Your task to perform on an android device: turn smart compose on in the gmail app Image 0: 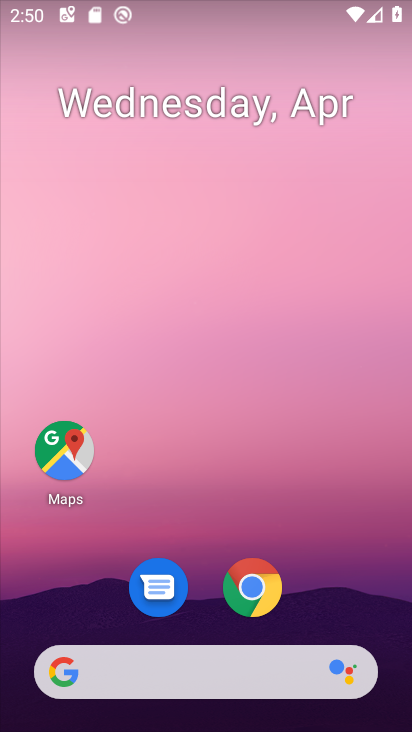
Step 0: drag from (360, 595) to (263, 79)
Your task to perform on an android device: turn smart compose on in the gmail app Image 1: 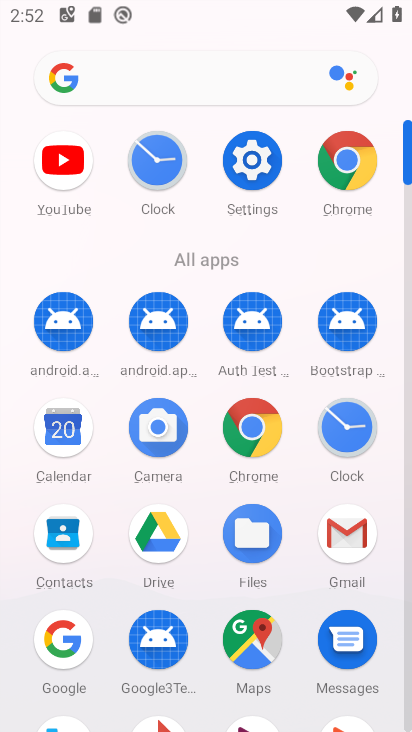
Step 1: click (348, 524)
Your task to perform on an android device: turn smart compose on in the gmail app Image 2: 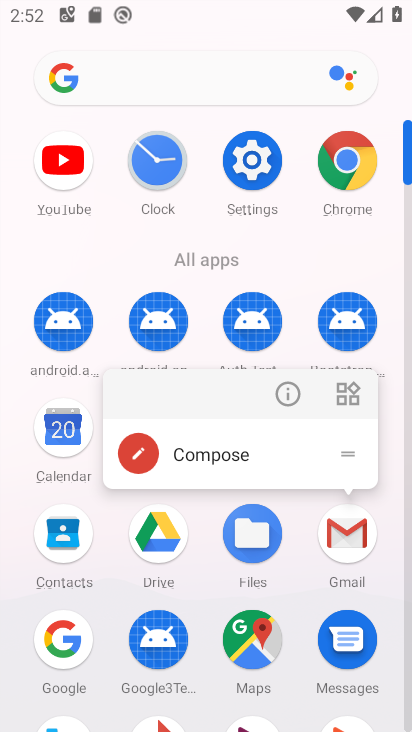
Step 2: click (353, 536)
Your task to perform on an android device: turn smart compose on in the gmail app Image 3: 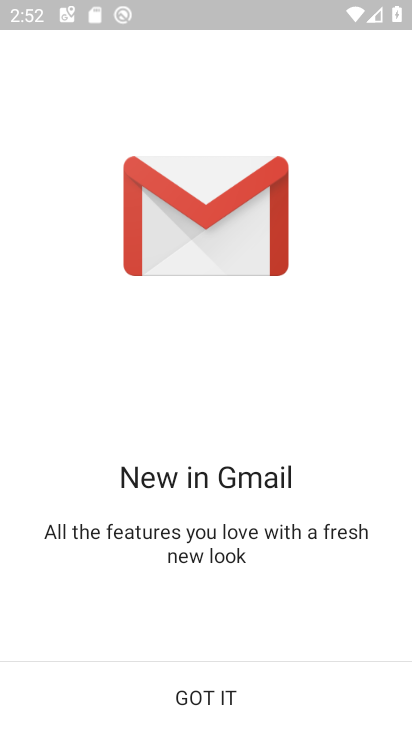
Step 3: click (241, 683)
Your task to perform on an android device: turn smart compose on in the gmail app Image 4: 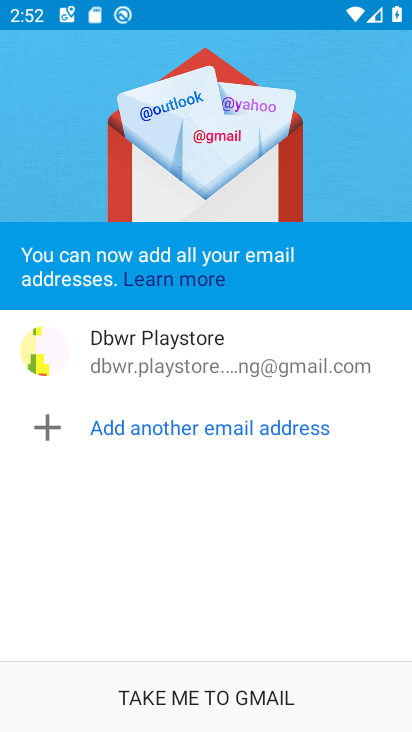
Step 4: click (241, 683)
Your task to perform on an android device: turn smart compose on in the gmail app Image 5: 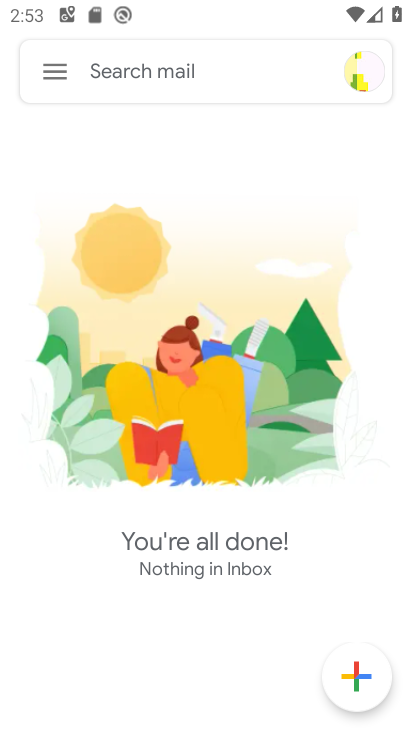
Step 5: click (69, 48)
Your task to perform on an android device: turn smart compose on in the gmail app Image 6: 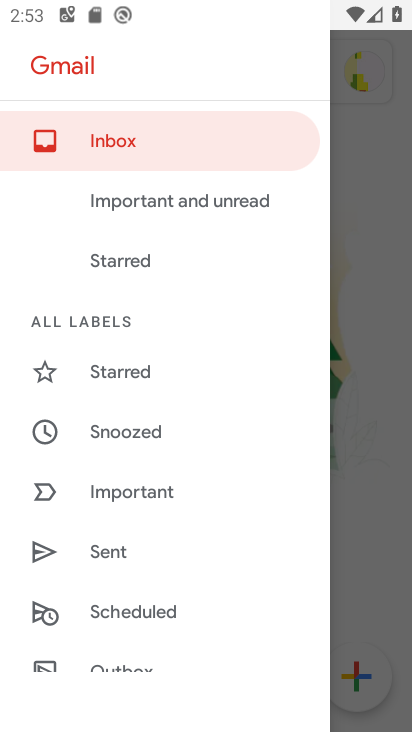
Step 6: drag from (135, 490) to (190, 124)
Your task to perform on an android device: turn smart compose on in the gmail app Image 7: 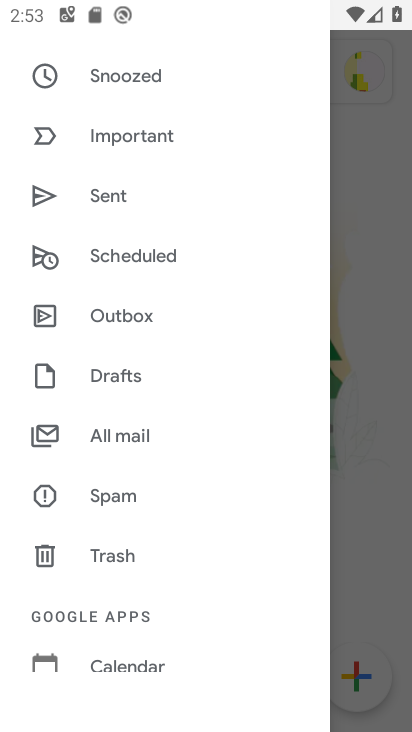
Step 7: drag from (183, 584) to (275, 100)
Your task to perform on an android device: turn smart compose on in the gmail app Image 8: 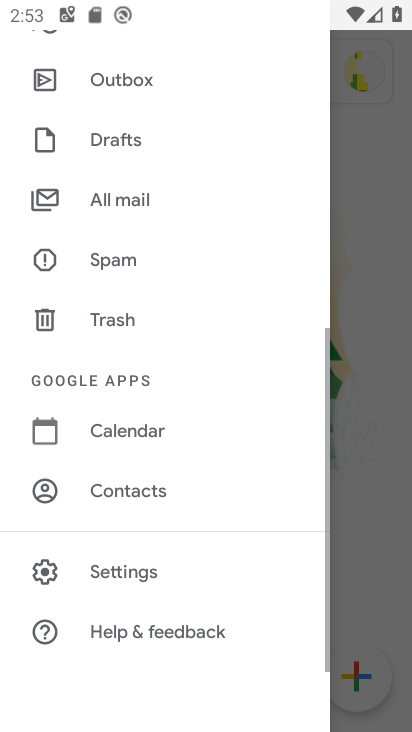
Step 8: click (169, 564)
Your task to perform on an android device: turn smart compose on in the gmail app Image 9: 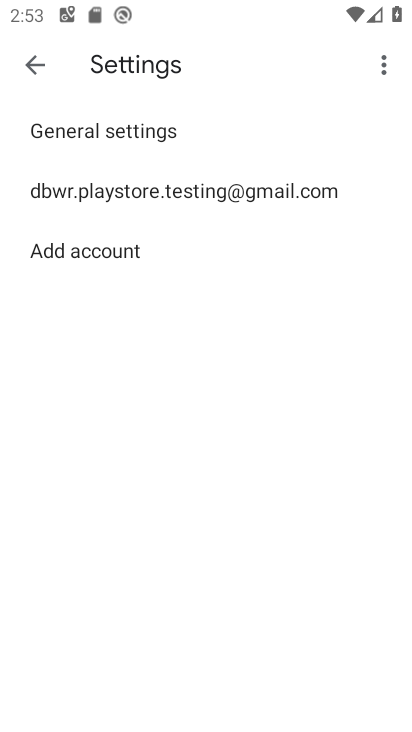
Step 9: click (183, 191)
Your task to perform on an android device: turn smart compose on in the gmail app Image 10: 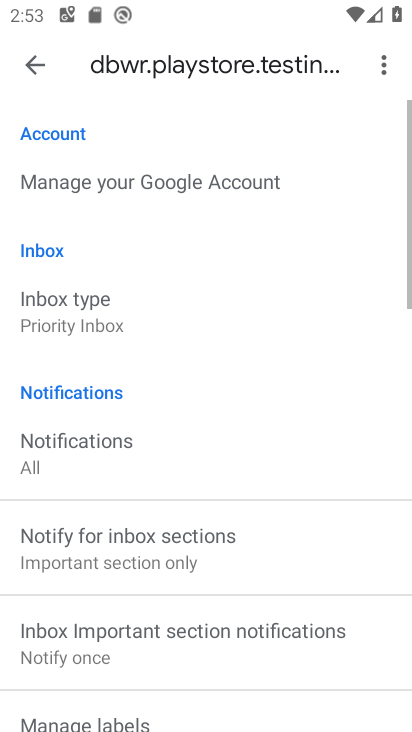
Step 10: task complete